Your task to perform on an android device: toggle pop-ups in chrome Image 0: 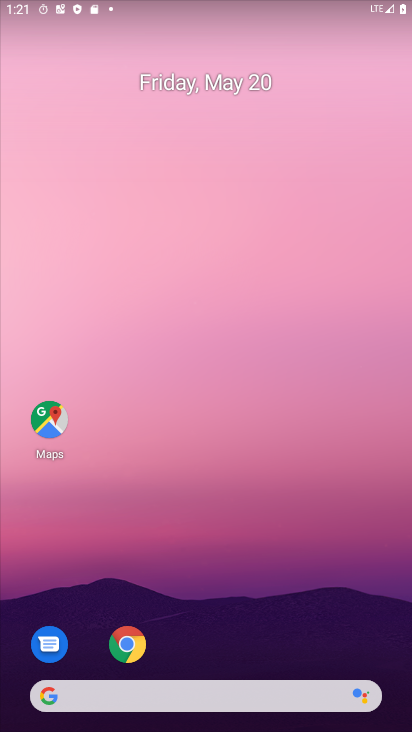
Step 0: click (279, 24)
Your task to perform on an android device: toggle pop-ups in chrome Image 1: 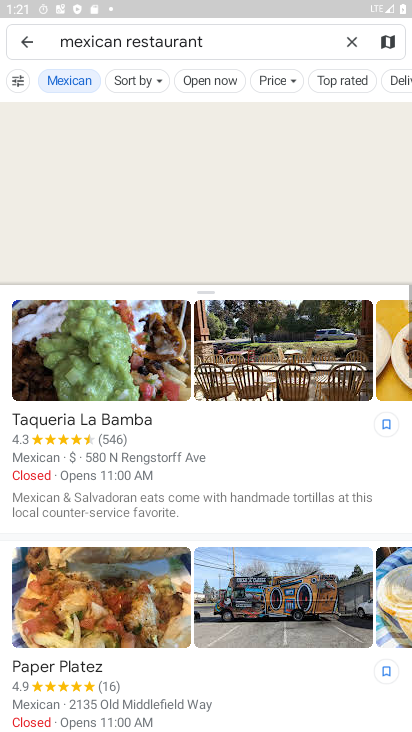
Step 1: press home button
Your task to perform on an android device: toggle pop-ups in chrome Image 2: 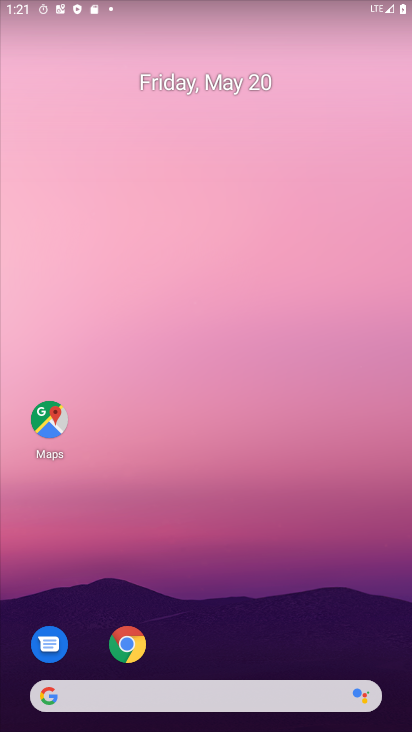
Step 2: drag from (299, 592) to (411, 59)
Your task to perform on an android device: toggle pop-ups in chrome Image 3: 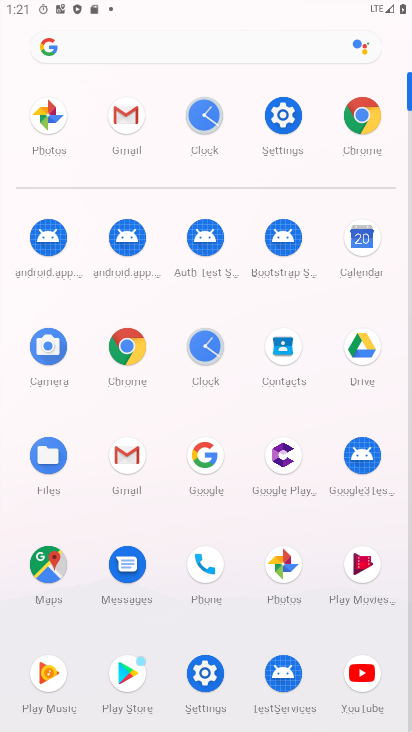
Step 3: click (370, 135)
Your task to perform on an android device: toggle pop-ups in chrome Image 4: 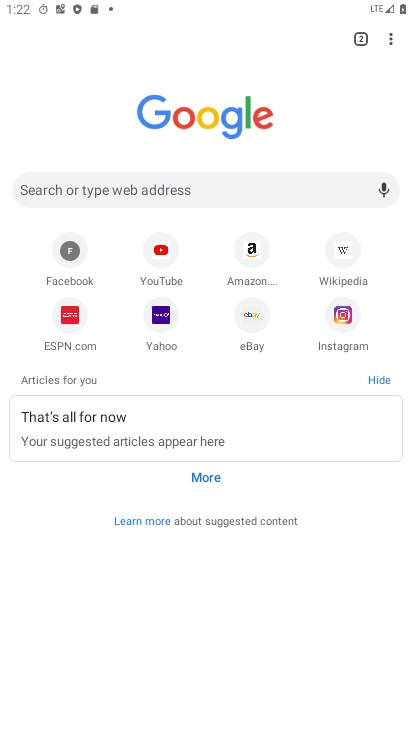
Step 4: drag from (395, 32) to (266, 335)
Your task to perform on an android device: toggle pop-ups in chrome Image 5: 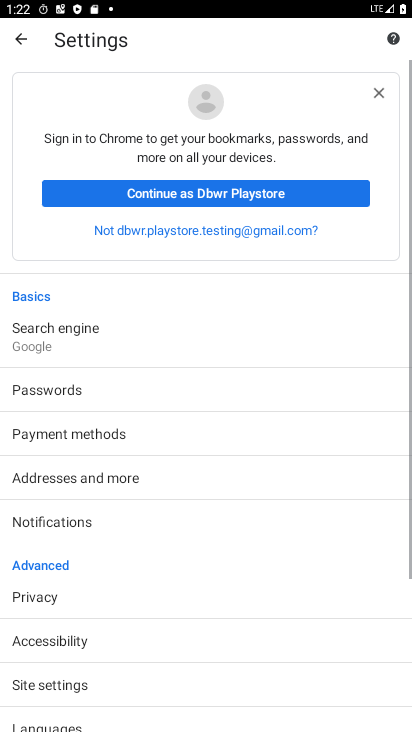
Step 5: drag from (135, 459) to (142, 231)
Your task to perform on an android device: toggle pop-ups in chrome Image 6: 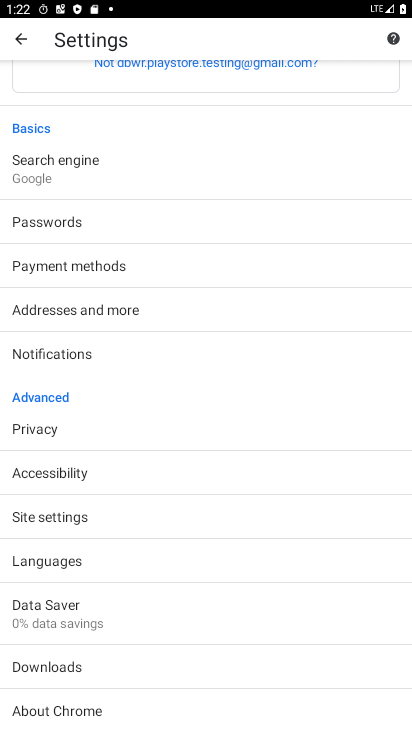
Step 6: click (61, 513)
Your task to perform on an android device: toggle pop-ups in chrome Image 7: 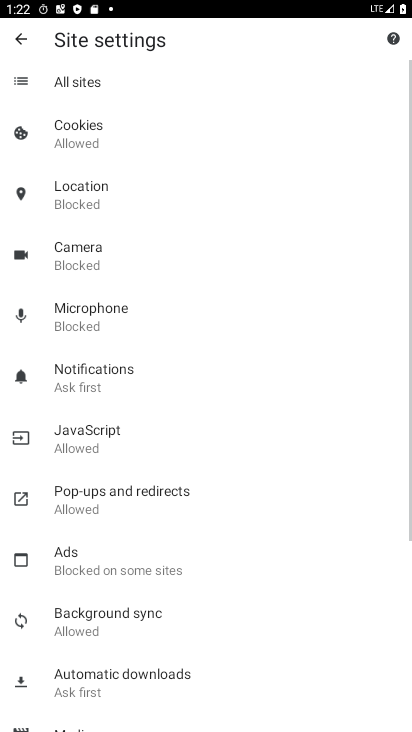
Step 7: click (88, 506)
Your task to perform on an android device: toggle pop-ups in chrome Image 8: 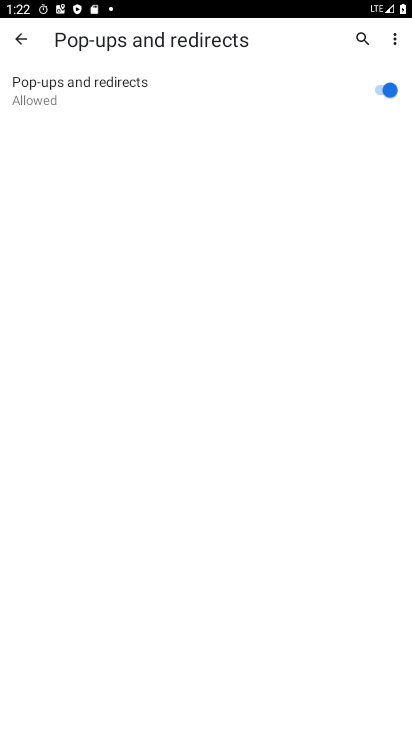
Step 8: click (397, 88)
Your task to perform on an android device: toggle pop-ups in chrome Image 9: 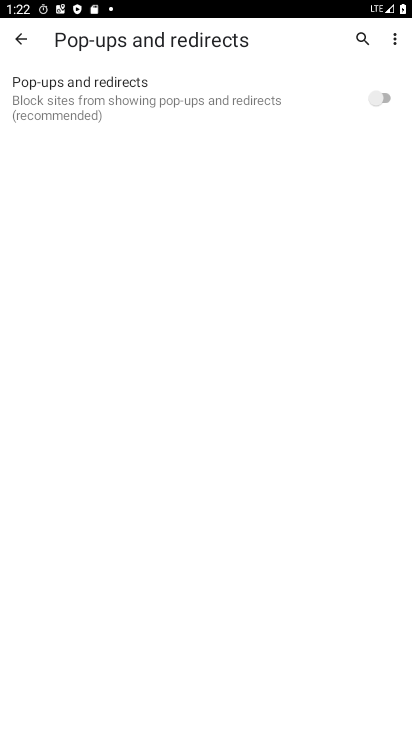
Step 9: task complete